Your task to perform on an android device: Open sound settings Image 0: 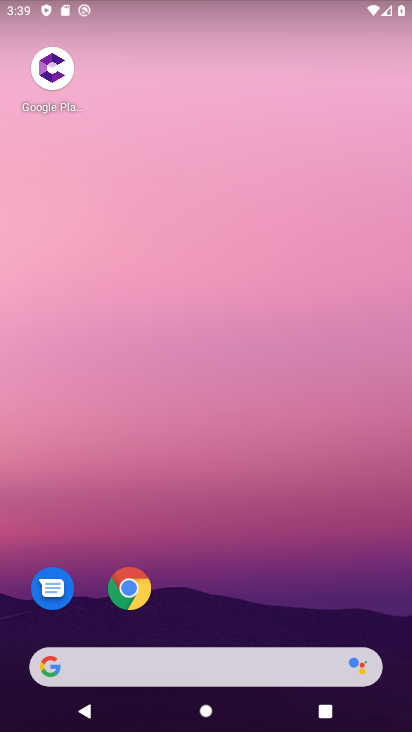
Step 0: drag from (218, 593) to (243, 130)
Your task to perform on an android device: Open sound settings Image 1: 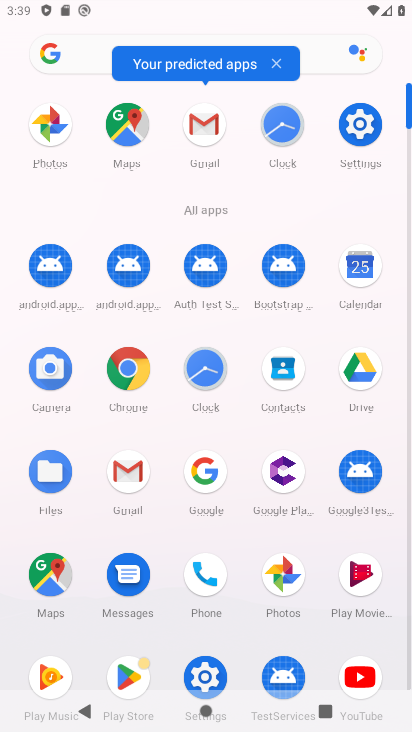
Step 1: click (352, 124)
Your task to perform on an android device: Open sound settings Image 2: 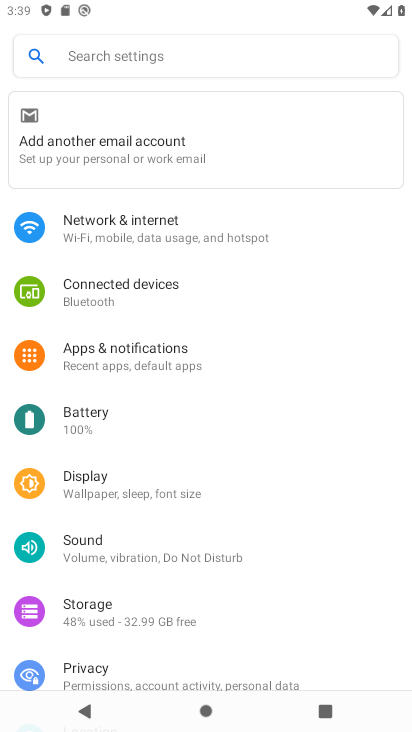
Step 2: click (112, 537)
Your task to perform on an android device: Open sound settings Image 3: 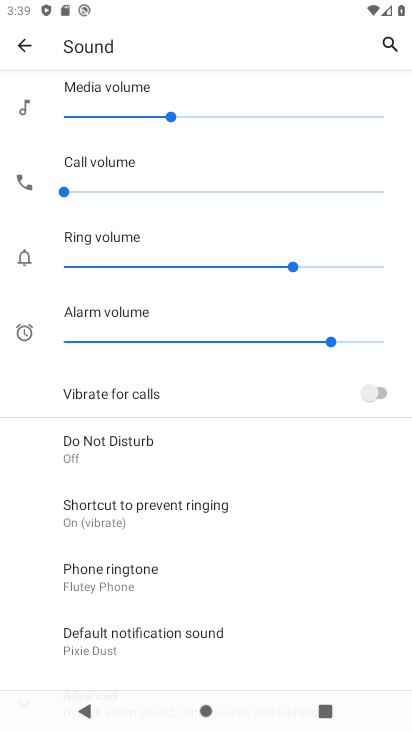
Step 3: task complete